Your task to perform on an android device: open chrome and create a bookmark for the current page Image 0: 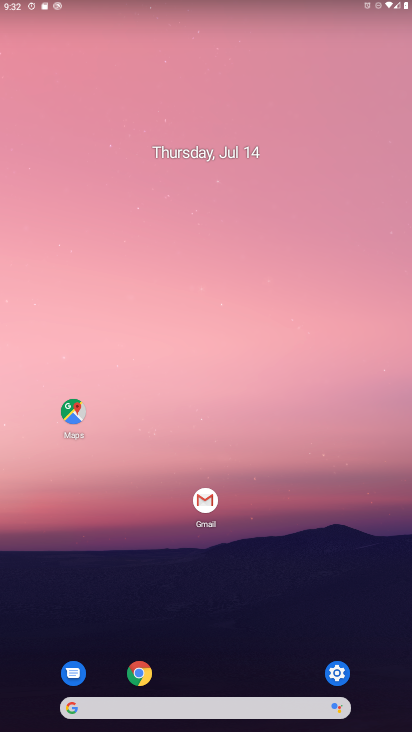
Step 0: drag from (261, 723) to (248, 263)
Your task to perform on an android device: open chrome and create a bookmark for the current page Image 1: 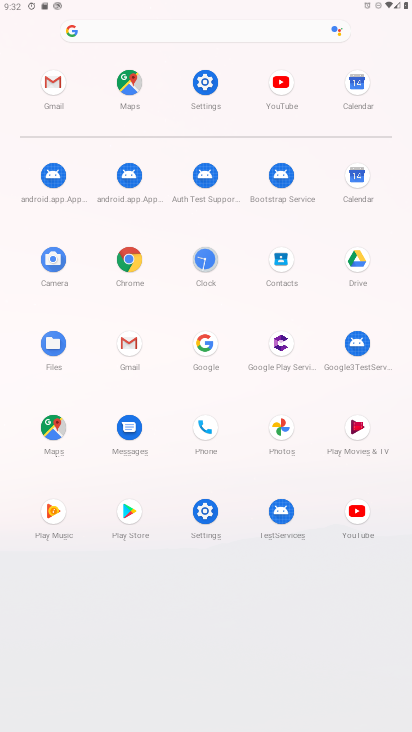
Step 1: click (134, 253)
Your task to perform on an android device: open chrome and create a bookmark for the current page Image 2: 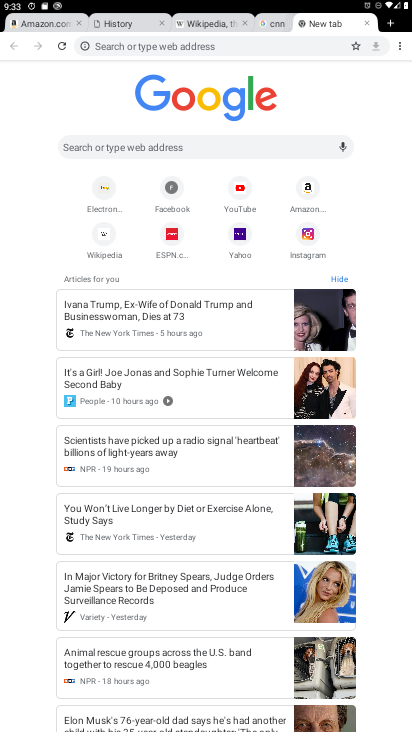
Step 2: click (405, 49)
Your task to perform on an android device: open chrome and create a bookmark for the current page Image 3: 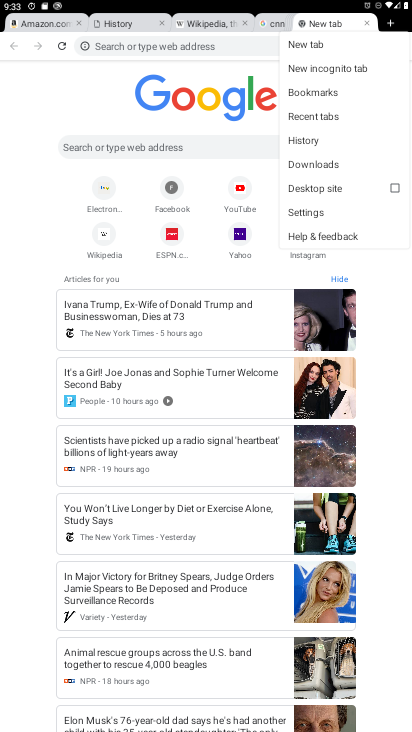
Step 3: click (307, 93)
Your task to perform on an android device: open chrome and create a bookmark for the current page Image 4: 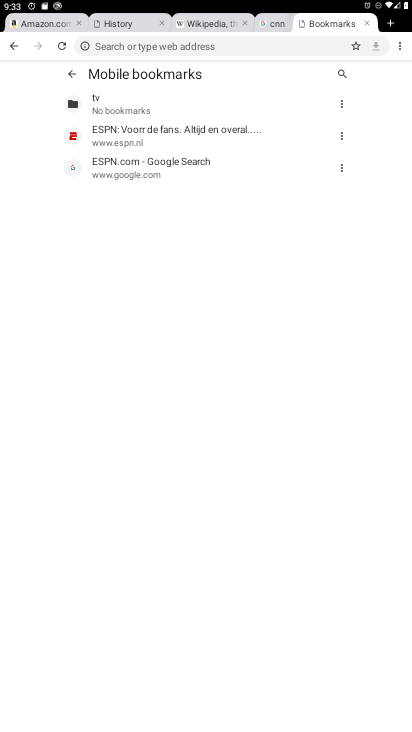
Step 4: click (139, 105)
Your task to perform on an android device: open chrome and create a bookmark for the current page Image 5: 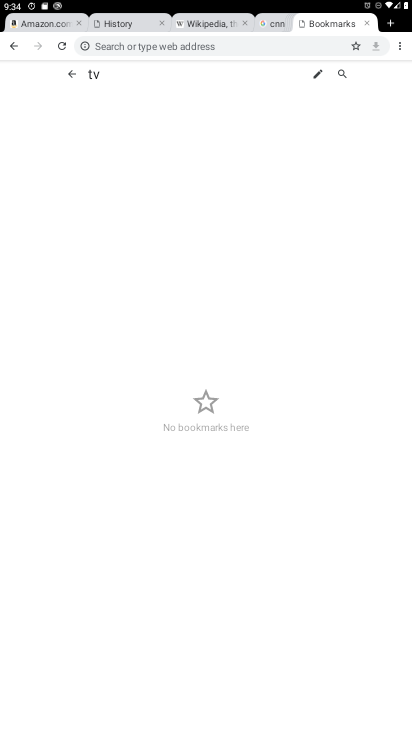
Step 5: task complete